Your task to perform on an android device: turn on sleep mode Image 0: 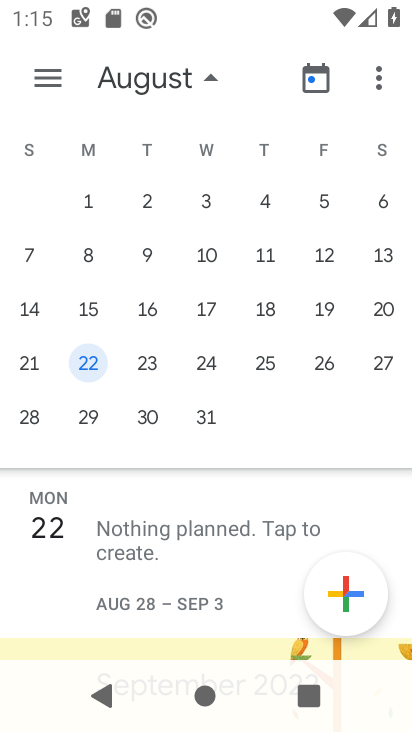
Step 0: press home button
Your task to perform on an android device: turn on sleep mode Image 1: 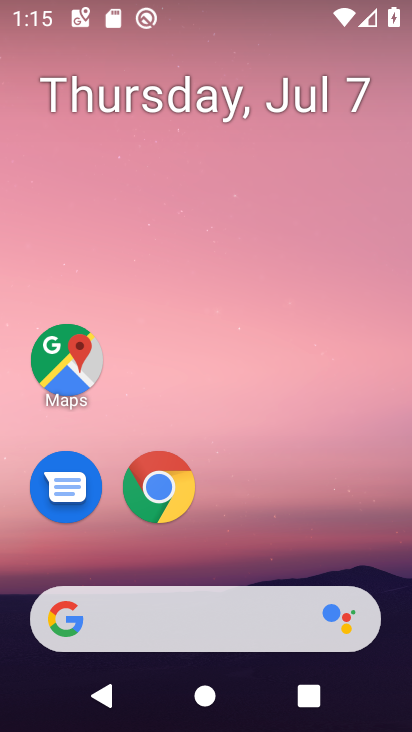
Step 1: drag from (334, 523) to (317, 75)
Your task to perform on an android device: turn on sleep mode Image 2: 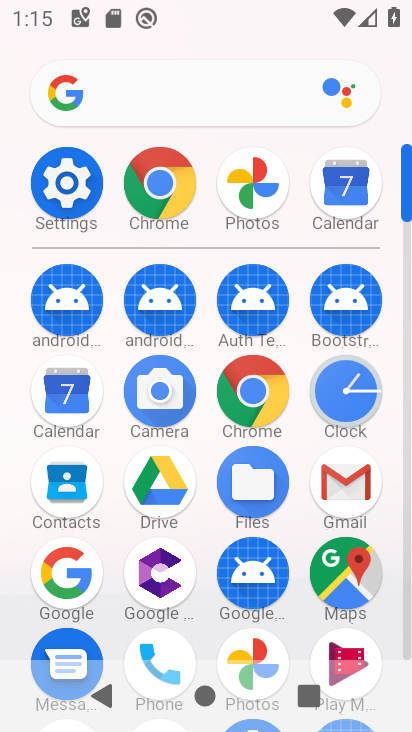
Step 2: drag from (202, 523) to (200, 294)
Your task to perform on an android device: turn on sleep mode Image 3: 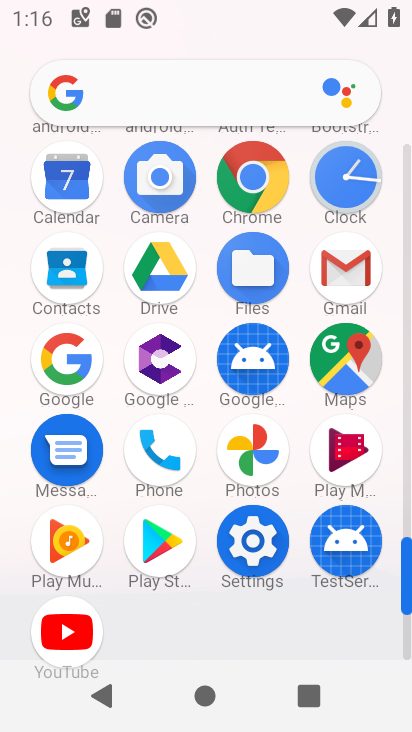
Step 3: click (264, 533)
Your task to perform on an android device: turn on sleep mode Image 4: 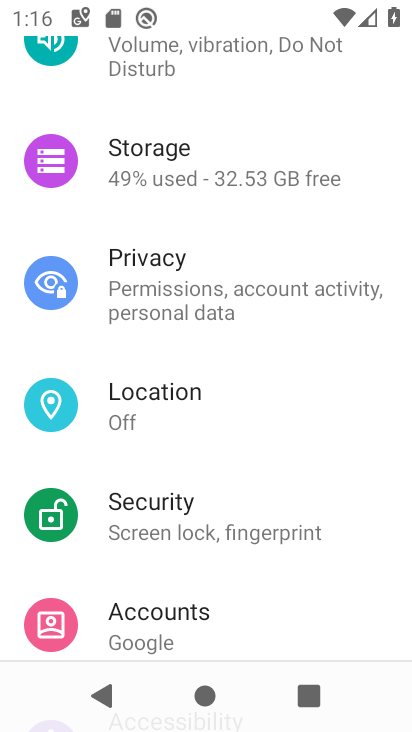
Step 4: drag from (346, 229) to (359, 421)
Your task to perform on an android device: turn on sleep mode Image 5: 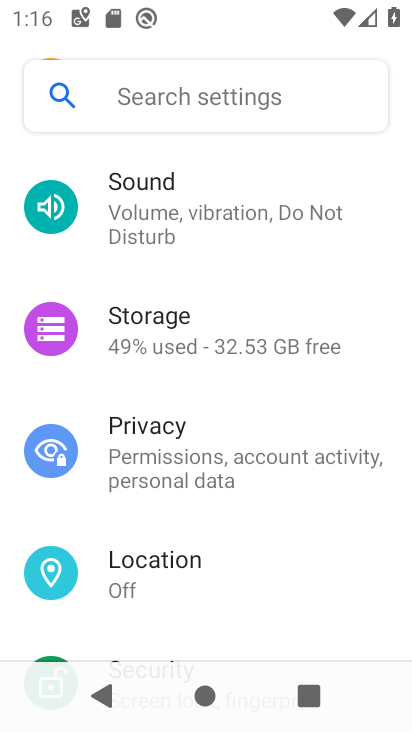
Step 5: drag from (366, 218) to (368, 414)
Your task to perform on an android device: turn on sleep mode Image 6: 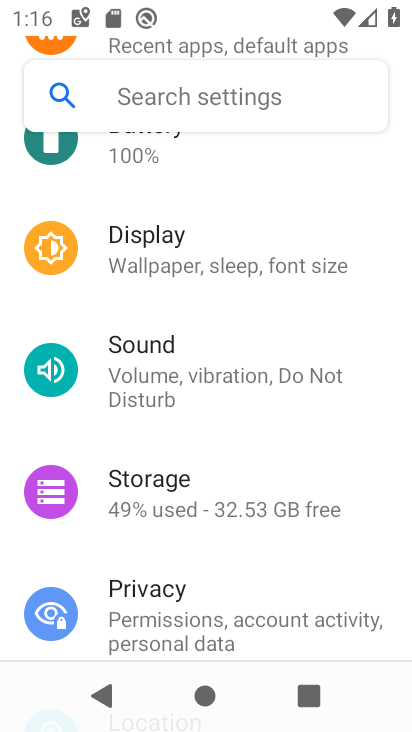
Step 6: drag from (367, 200) to (377, 365)
Your task to perform on an android device: turn on sleep mode Image 7: 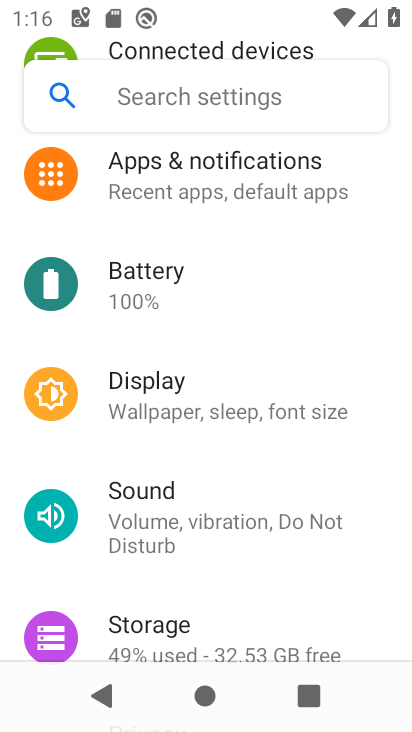
Step 7: drag from (364, 173) to (370, 374)
Your task to perform on an android device: turn on sleep mode Image 8: 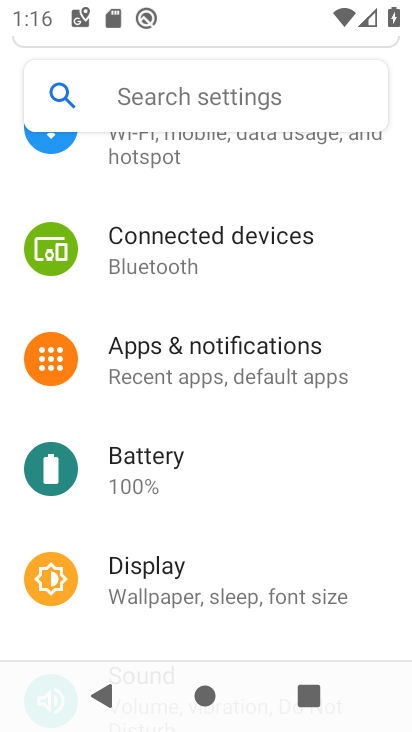
Step 8: drag from (359, 212) to (371, 366)
Your task to perform on an android device: turn on sleep mode Image 9: 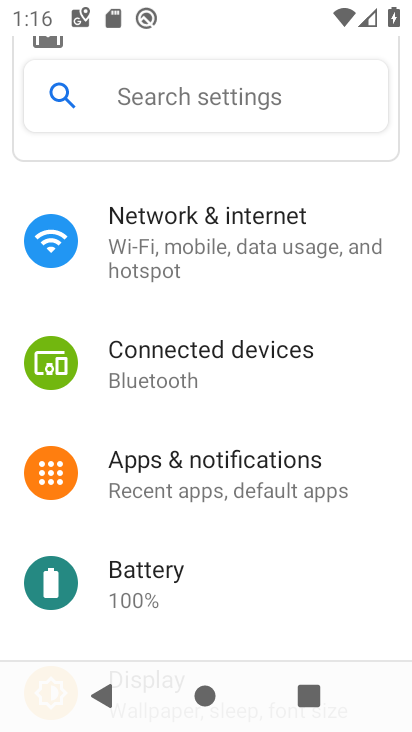
Step 9: drag from (357, 230) to (356, 354)
Your task to perform on an android device: turn on sleep mode Image 10: 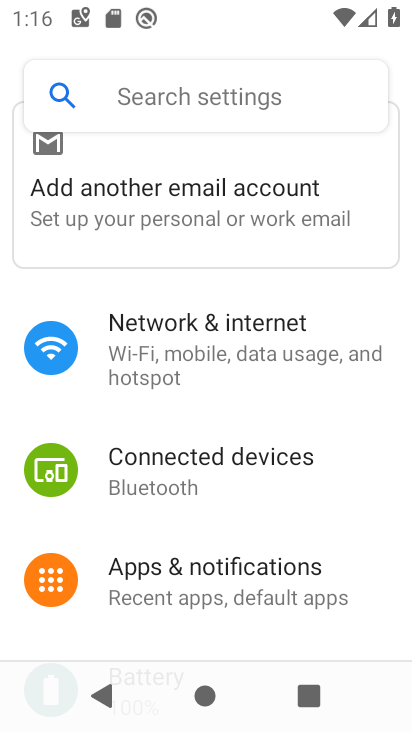
Step 10: drag from (348, 474) to (341, 299)
Your task to perform on an android device: turn on sleep mode Image 11: 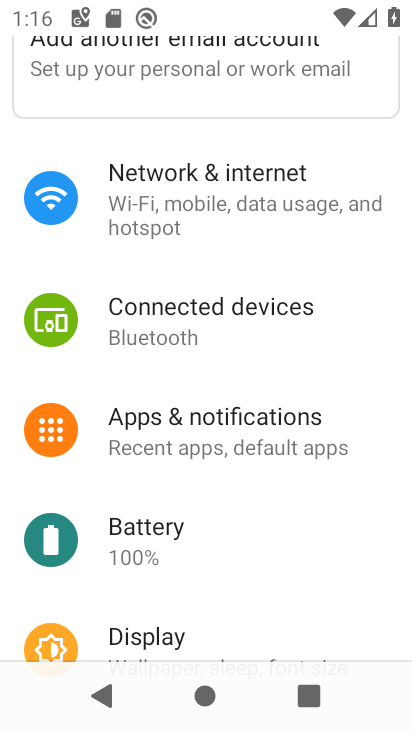
Step 11: drag from (355, 520) to (362, 380)
Your task to perform on an android device: turn on sleep mode Image 12: 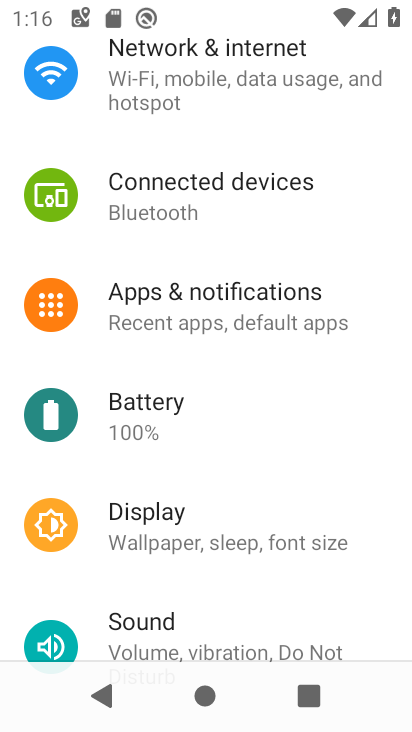
Step 12: drag from (357, 579) to (360, 326)
Your task to perform on an android device: turn on sleep mode Image 13: 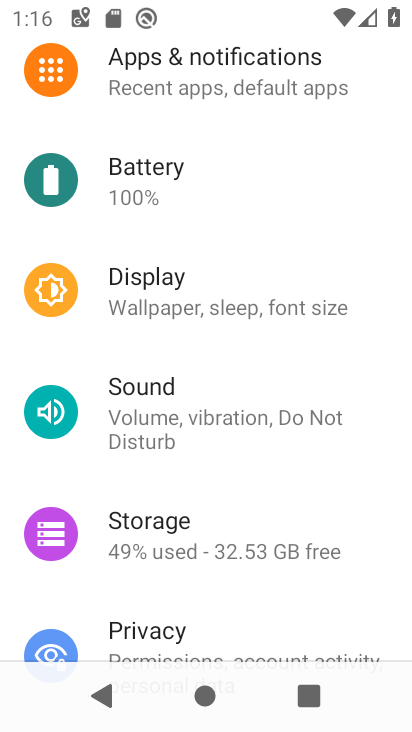
Step 13: drag from (357, 508) to (369, 318)
Your task to perform on an android device: turn on sleep mode Image 14: 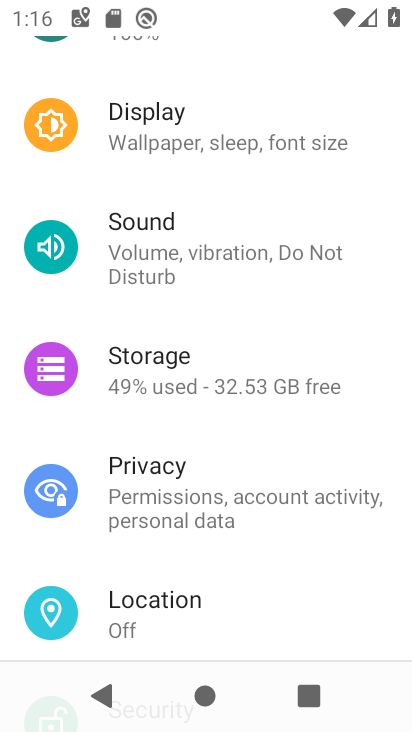
Step 14: click (205, 139)
Your task to perform on an android device: turn on sleep mode Image 15: 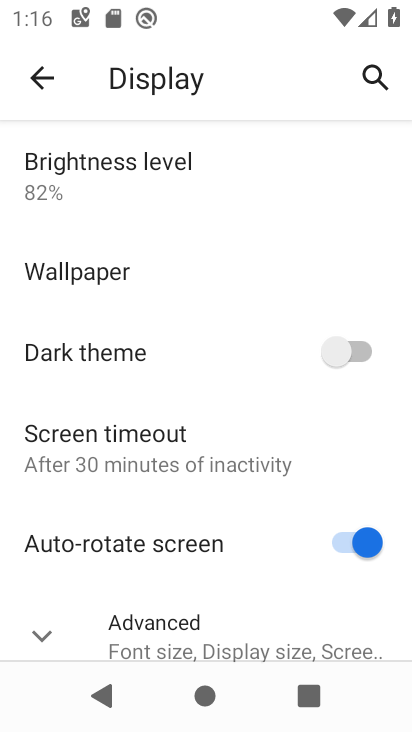
Step 15: click (198, 644)
Your task to perform on an android device: turn on sleep mode Image 16: 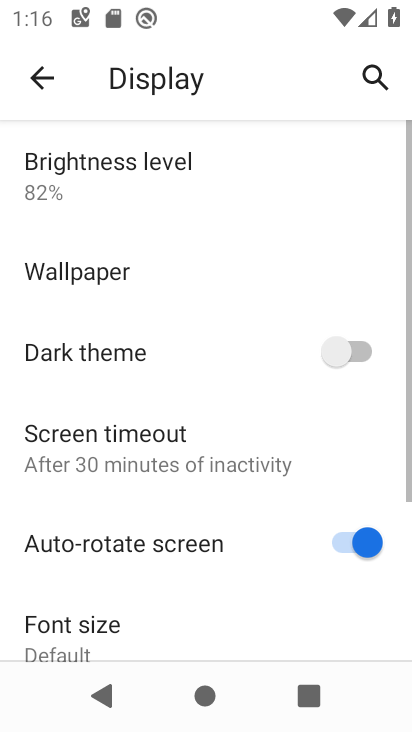
Step 16: task complete